Your task to perform on an android device: Show me popular games on the Play Store Image 0: 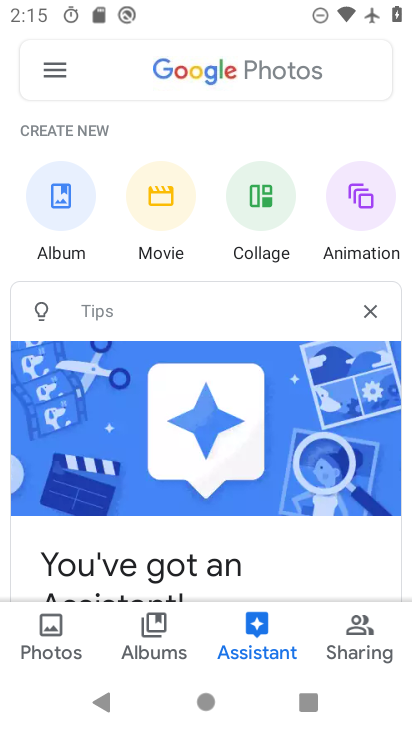
Step 0: press home button
Your task to perform on an android device: Show me popular games on the Play Store Image 1: 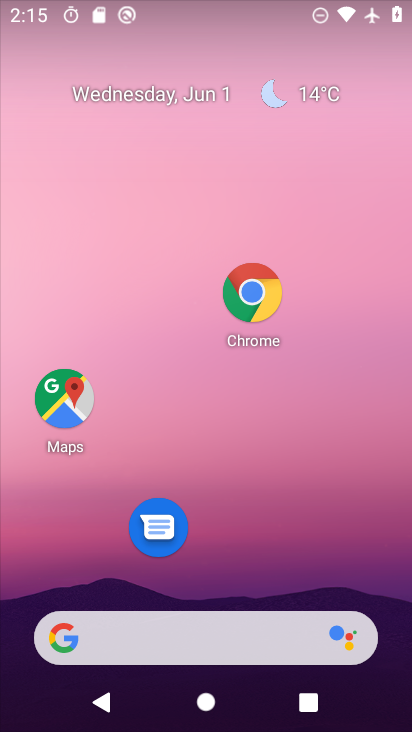
Step 1: drag from (275, 606) to (322, 112)
Your task to perform on an android device: Show me popular games on the Play Store Image 2: 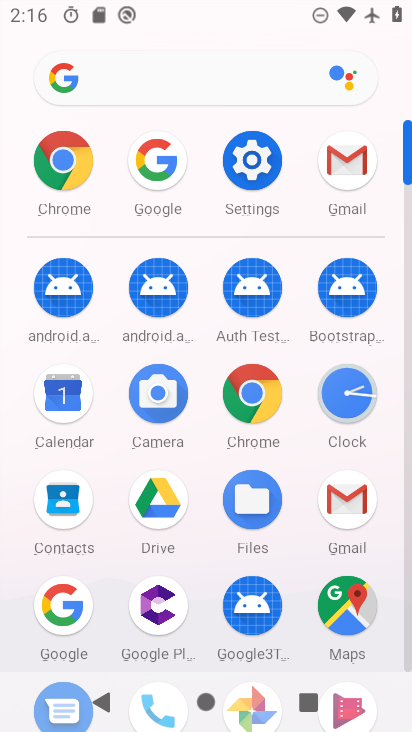
Step 2: drag from (214, 473) to (279, 133)
Your task to perform on an android device: Show me popular games on the Play Store Image 3: 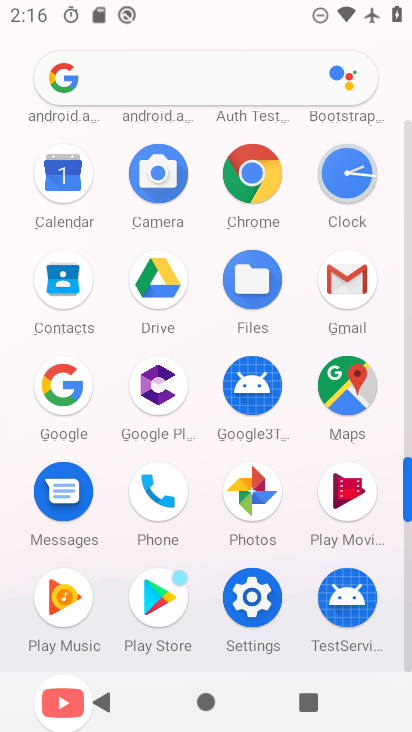
Step 3: click (170, 612)
Your task to perform on an android device: Show me popular games on the Play Store Image 4: 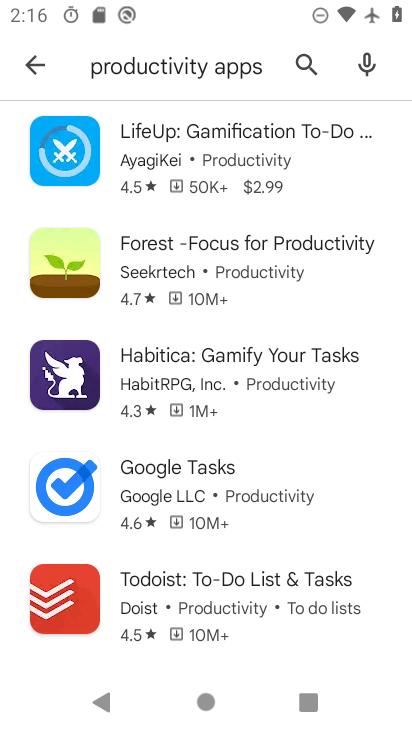
Step 4: click (32, 69)
Your task to perform on an android device: Show me popular games on the Play Store Image 5: 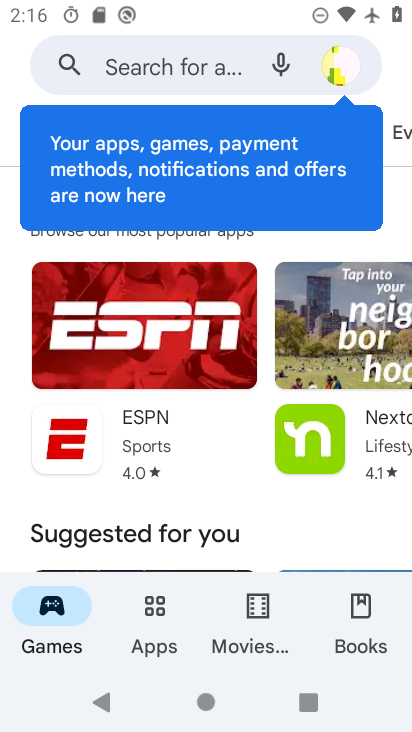
Step 5: task complete